Your task to perform on an android device: Open CNN.com Image 0: 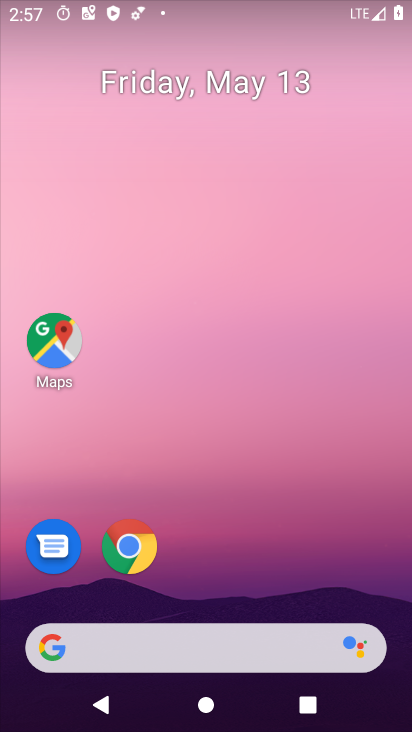
Step 0: drag from (215, 620) to (289, 118)
Your task to perform on an android device: Open CNN.com Image 1: 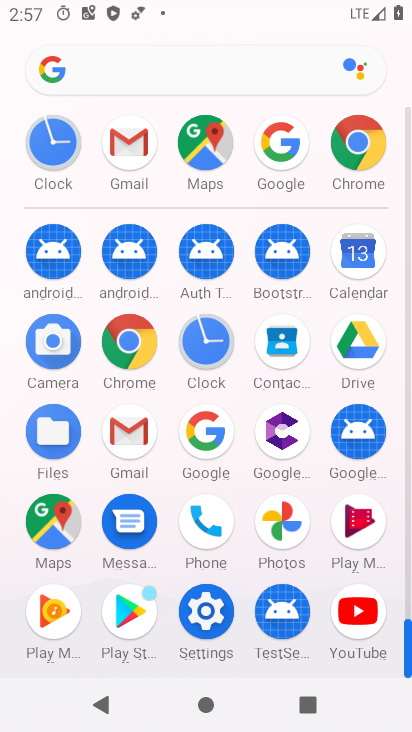
Step 1: click (351, 184)
Your task to perform on an android device: Open CNN.com Image 2: 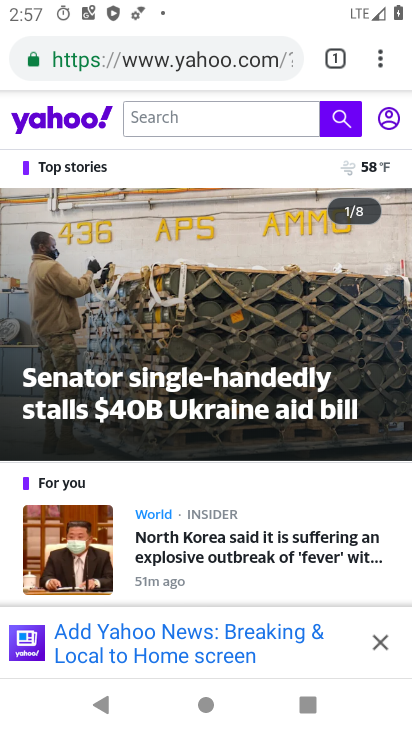
Step 2: click (261, 69)
Your task to perform on an android device: Open CNN.com Image 3: 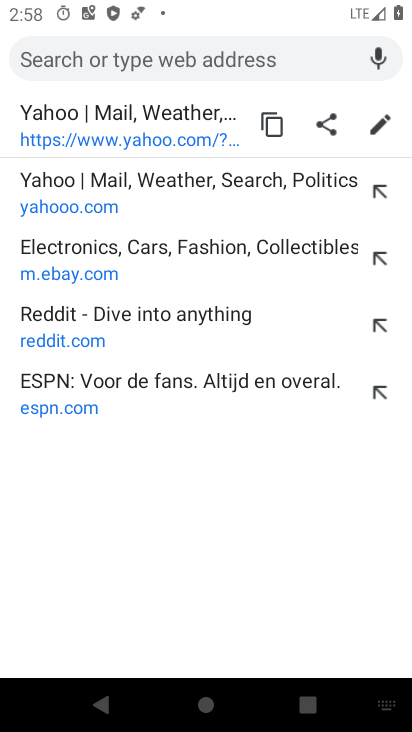
Step 3: type "cnn.com"
Your task to perform on an android device: Open CNN.com Image 4: 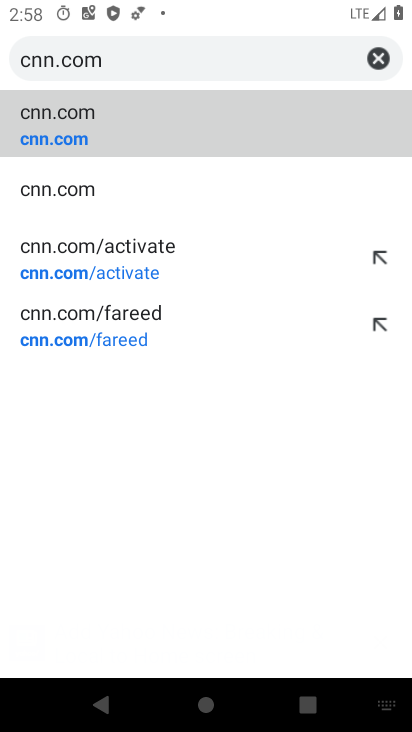
Step 4: click (243, 123)
Your task to perform on an android device: Open CNN.com Image 5: 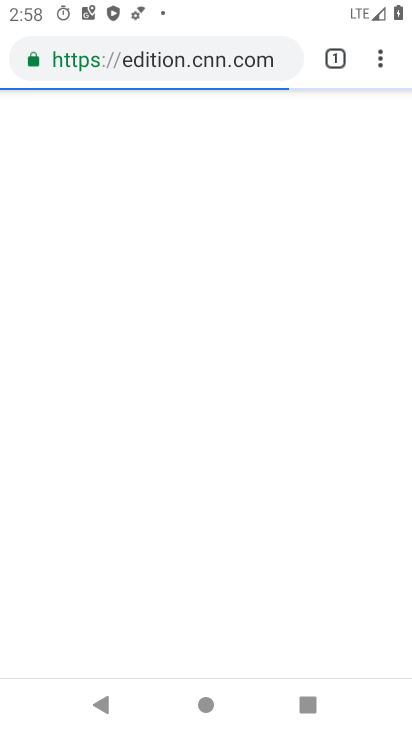
Step 5: task complete